Your task to perform on an android device: Clear the shopping cart on bestbuy.com. Search for usb-b on bestbuy.com, select the first entry, add it to the cart, then select checkout. Image 0: 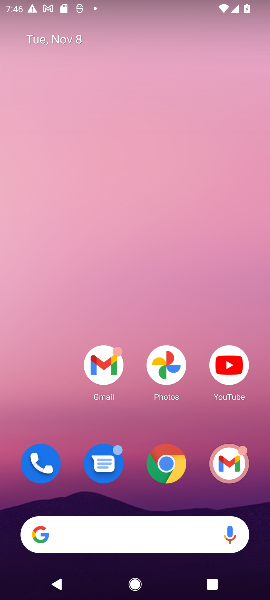
Step 0: click (171, 464)
Your task to perform on an android device: Clear the shopping cart on bestbuy.com. Search for usb-b on bestbuy.com, select the first entry, add it to the cart, then select checkout. Image 1: 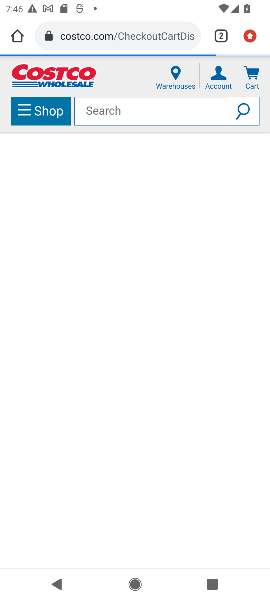
Step 1: click (129, 30)
Your task to perform on an android device: Clear the shopping cart on bestbuy.com. Search for usb-b on bestbuy.com, select the first entry, add it to the cart, then select checkout. Image 2: 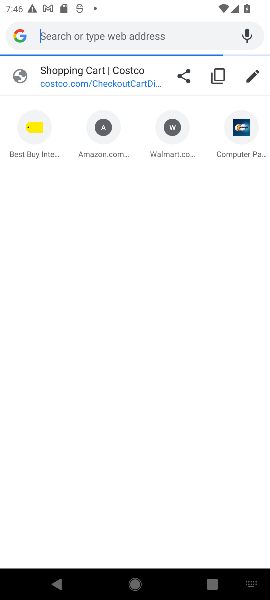
Step 2: click (19, 118)
Your task to perform on an android device: Clear the shopping cart on bestbuy.com. Search for usb-b on bestbuy.com, select the first entry, add it to the cart, then select checkout. Image 3: 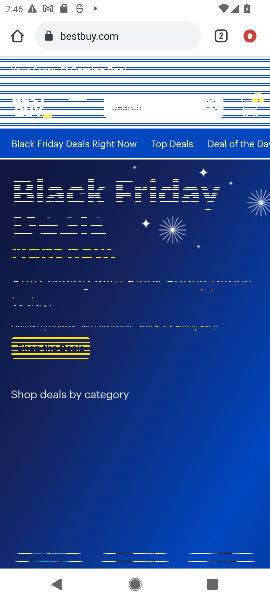
Step 3: click (257, 105)
Your task to perform on an android device: Clear the shopping cart on bestbuy.com. Search for usb-b on bestbuy.com, select the first entry, add it to the cart, then select checkout. Image 4: 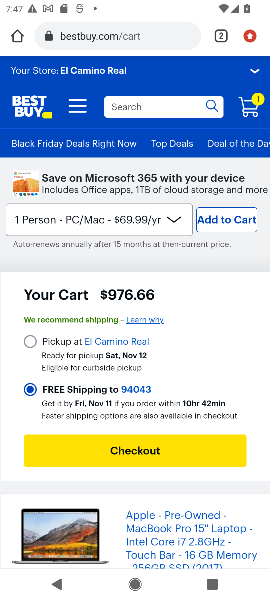
Step 4: drag from (125, 487) to (147, 168)
Your task to perform on an android device: Clear the shopping cart on bestbuy.com. Search for usb-b on bestbuy.com, select the first entry, add it to the cart, then select checkout. Image 5: 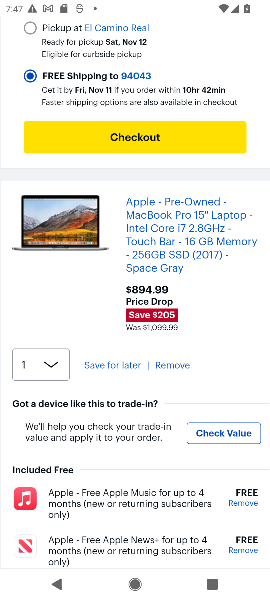
Step 5: click (157, 366)
Your task to perform on an android device: Clear the shopping cart on bestbuy.com. Search for usb-b on bestbuy.com, select the first entry, add it to the cart, then select checkout. Image 6: 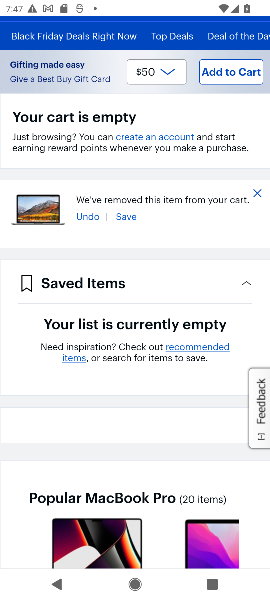
Step 6: drag from (94, 92) to (84, 396)
Your task to perform on an android device: Clear the shopping cart on bestbuy.com. Search for usb-b on bestbuy.com, select the first entry, add it to the cart, then select checkout. Image 7: 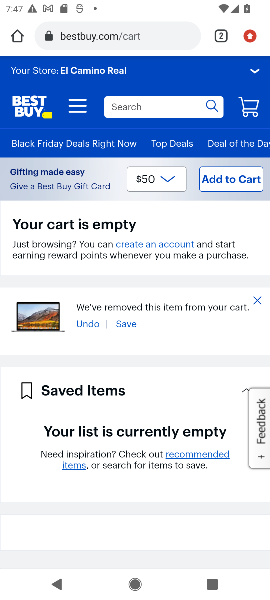
Step 7: click (132, 112)
Your task to perform on an android device: Clear the shopping cart on bestbuy.com. Search for usb-b on bestbuy.com, select the first entry, add it to the cart, then select checkout. Image 8: 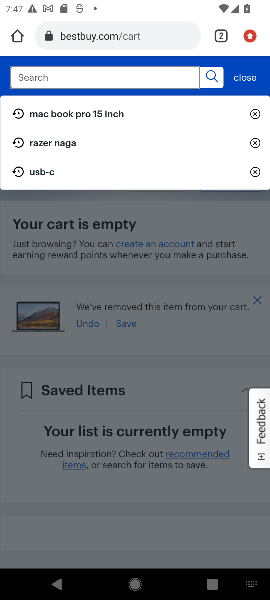
Step 8: type "usb-b"
Your task to perform on an android device: Clear the shopping cart on bestbuy.com. Search for usb-b on bestbuy.com, select the first entry, add it to the cart, then select checkout. Image 9: 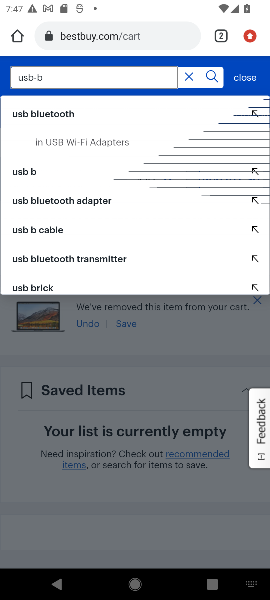
Step 9: click (220, 76)
Your task to perform on an android device: Clear the shopping cart on bestbuy.com. Search for usb-b on bestbuy.com, select the first entry, add it to the cart, then select checkout. Image 10: 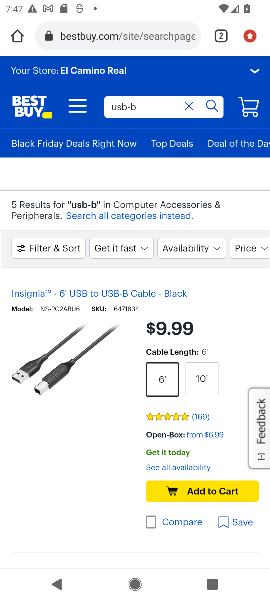
Step 10: click (179, 485)
Your task to perform on an android device: Clear the shopping cart on bestbuy.com. Search for usb-b on bestbuy.com, select the first entry, add it to the cart, then select checkout. Image 11: 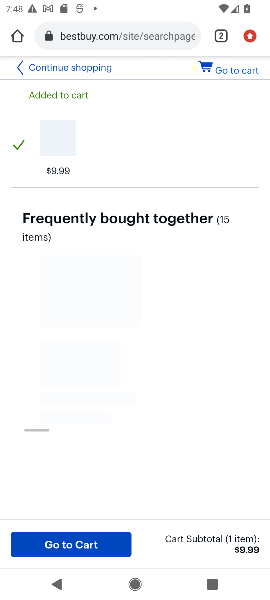
Step 11: click (221, 71)
Your task to perform on an android device: Clear the shopping cart on bestbuy.com. Search for usb-b on bestbuy.com, select the first entry, add it to the cart, then select checkout. Image 12: 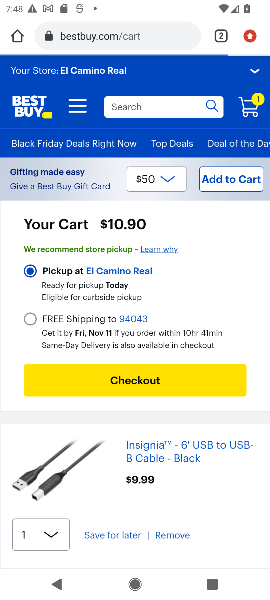
Step 12: click (80, 384)
Your task to perform on an android device: Clear the shopping cart on bestbuy.com. Search for usb-b on bestbuy.com, select the first entry, add it to the cart, then select checkout. Image 13: 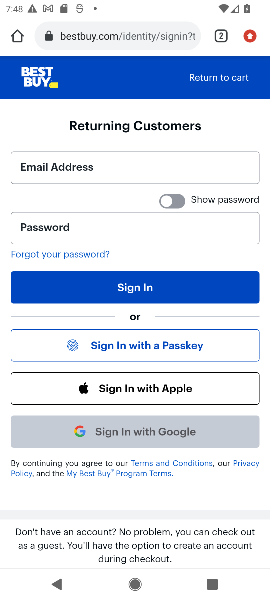
Step 13: task complete